Your task to perform on an android device: turn on airplane mode Image 0: 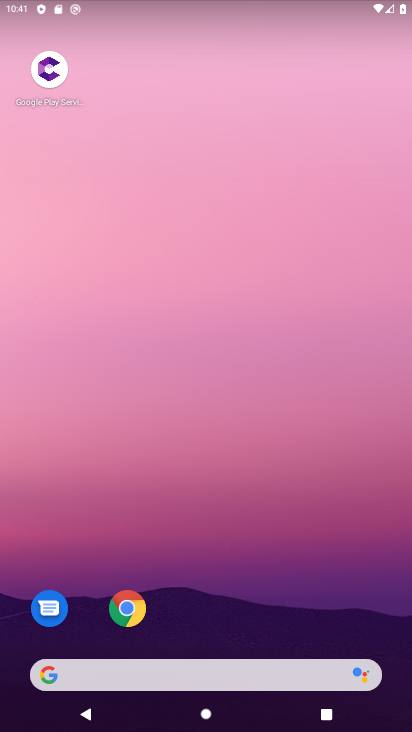
Step 0: press home button
Your task to perform on an android device: turn on airplane mode Image 1: 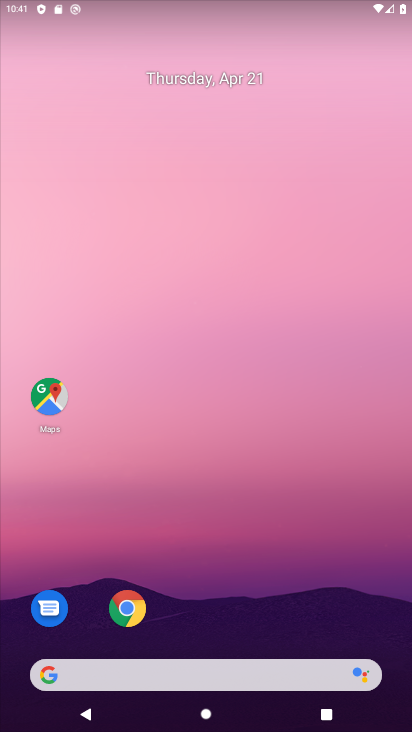
Step 1: drag from (215, 632) to (230, 185)
Your task to perform on an android device: turn on airplane mode Image 2: 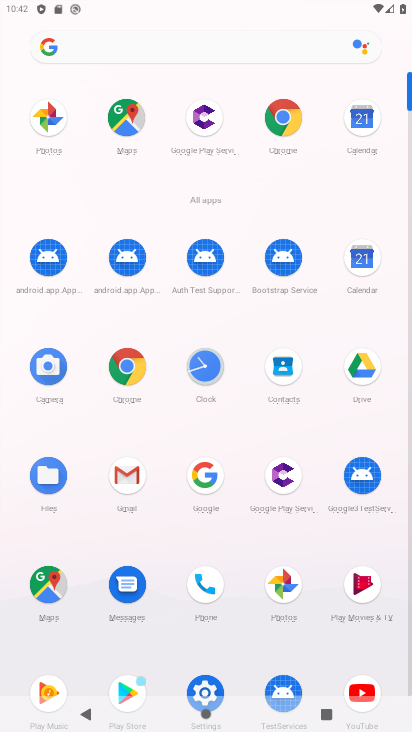
Step 2: drag from (237, 590) to (241, 255)
Your task to perform on an android device: turn on airplane mode Image 3: 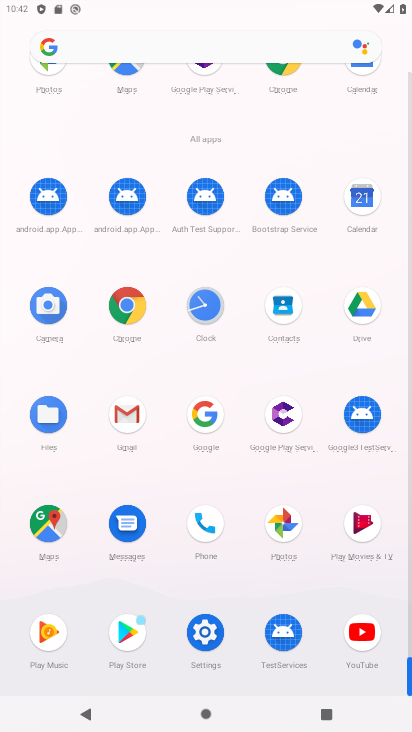
Step 3: click (206, 627)
Your task to perform on an android device: turn on airplane mode Image 4: 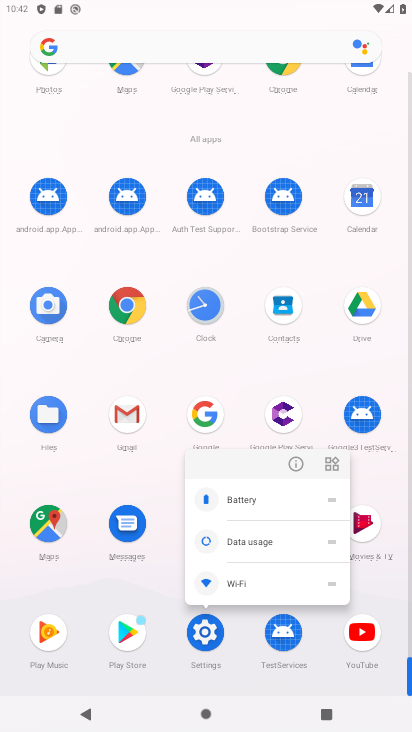
Step 4: click (293, 457)
Your task to perform on an android device: turn on airplane mode Image 5: 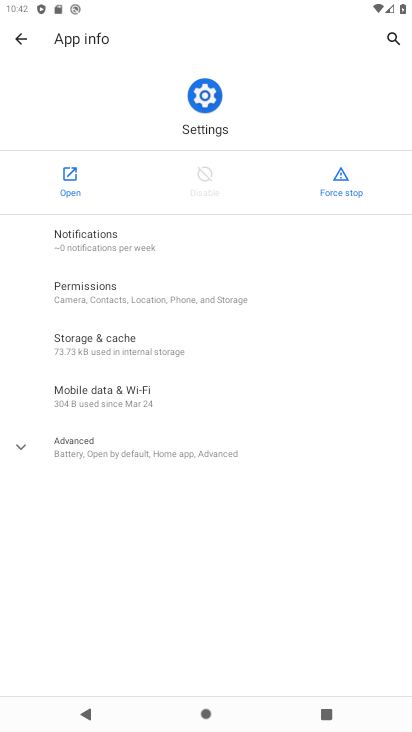
Step 5: click (71, 184)
Your task to perform on an android device: turn on airplane mode Image 6: 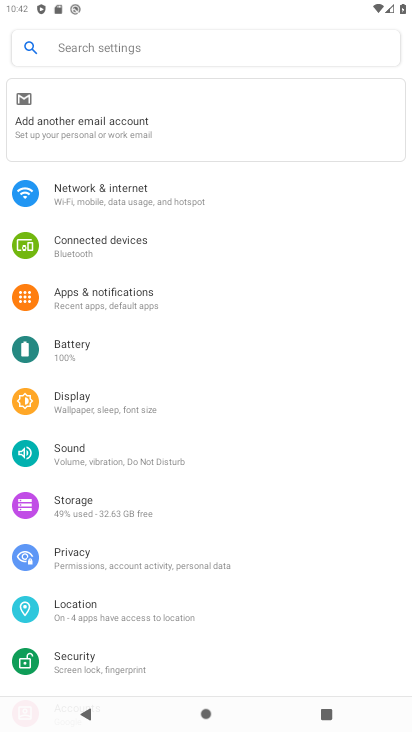
Step 6: click (110, 199)
Your task to perform on an android device: turn on airplane mode Image 7: 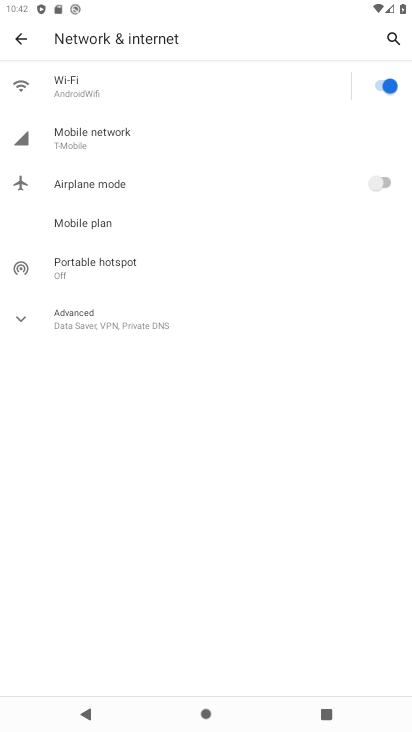
Step 7: click (378, 185)
Your task to perform on an android device: turn on airplane mode Image 8: 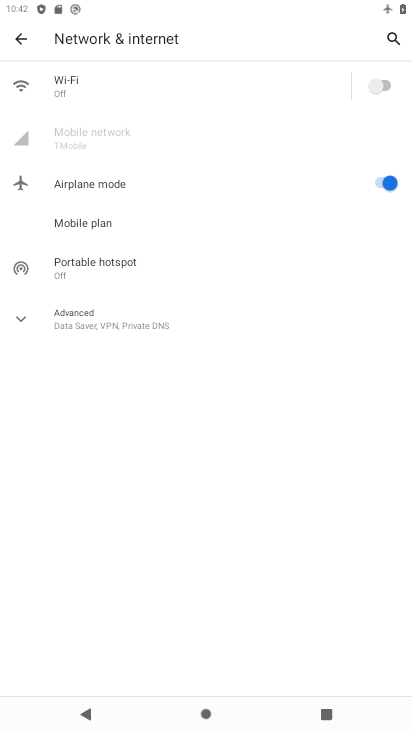
Step 8: task complete